Your task to perform on an android device: open a new tab in the chrome app Image 0: 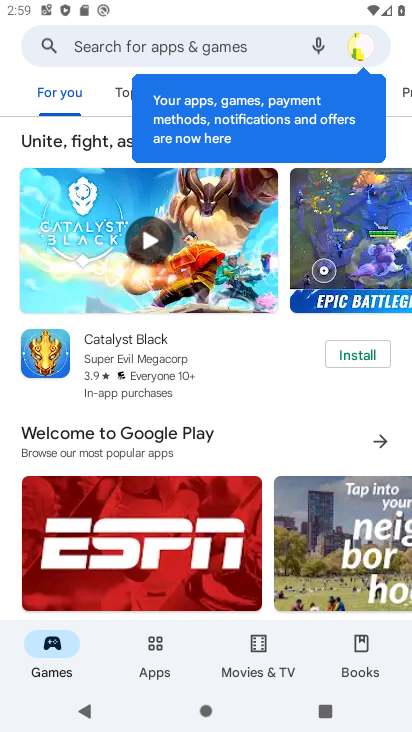
Step 0: press back button
Your task to perform on an android device: open a new tab in the chrome app Image 1: 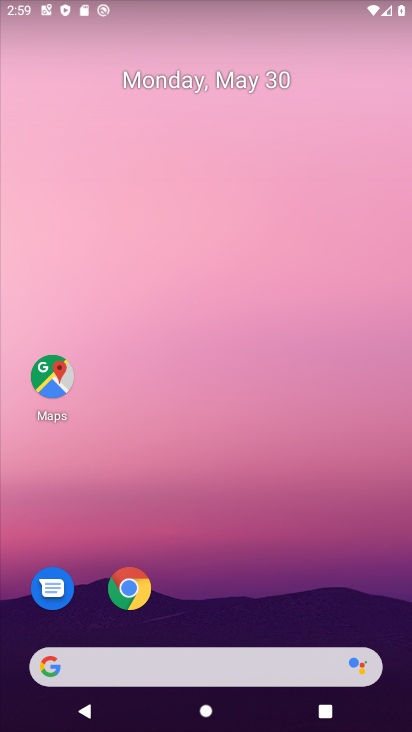
Step 1: drag from (238, 540) to (174, 69)
Your task to perform on an android device: open a new tab in the chrome app Image 2: 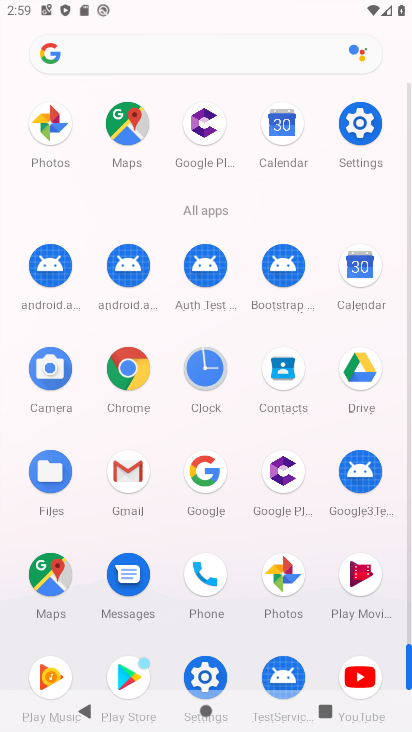
Step 2: drag from (5, 474) to (8, 250)
Your task to perform on an android device: open a new tab in the chrome app Image 3: 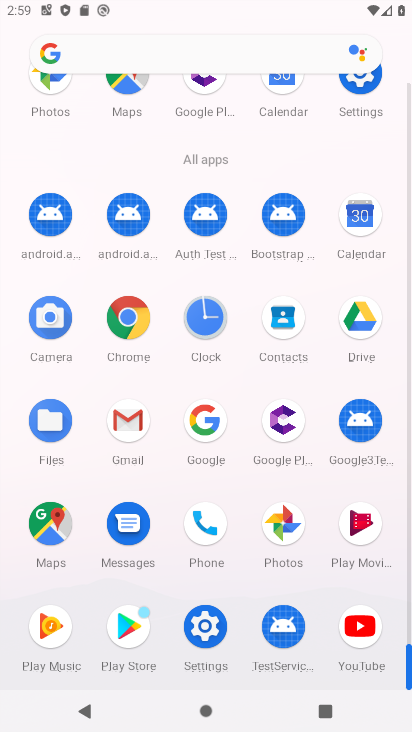
Step 3: click (128, 314)
Your task to perform on an android device: open a new tab in the chrome app Image 4: 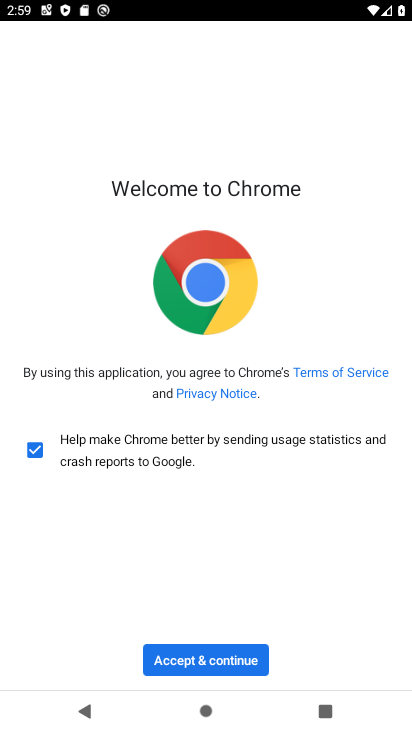
Step 4: click (201, 658)
Your task to perform on an android device: open a new tab in the chrome app Image 5: 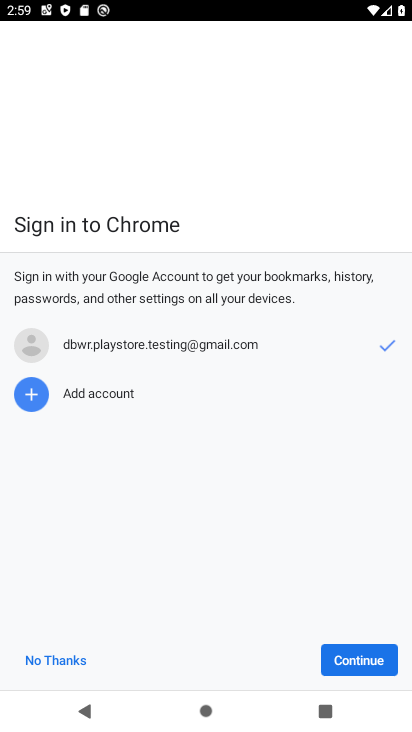
Step 5: click (361, 656)
Your task to perform on an android device: open a new tab in the chrome app Image 6: 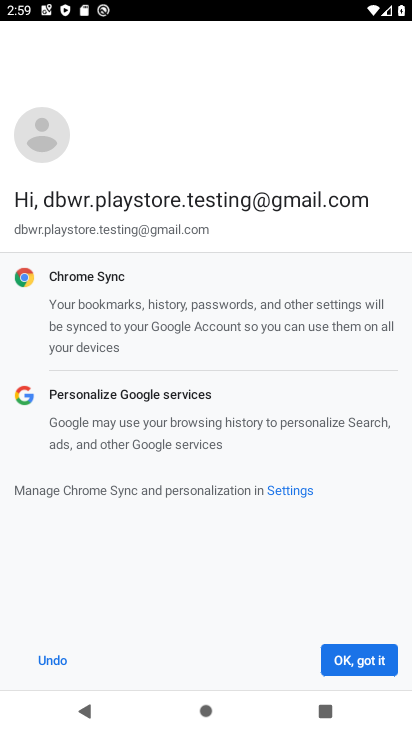
Step 6: click (354, 660)
Your task to perform on an android device: open a new tab in the chrome app Image 7: 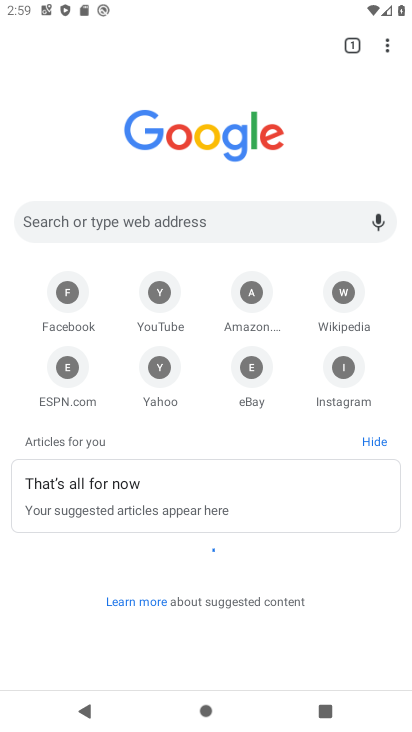
Step 7: task complete